Your task to perform on an android device: move an email to a new category in the gmail app Image 0: 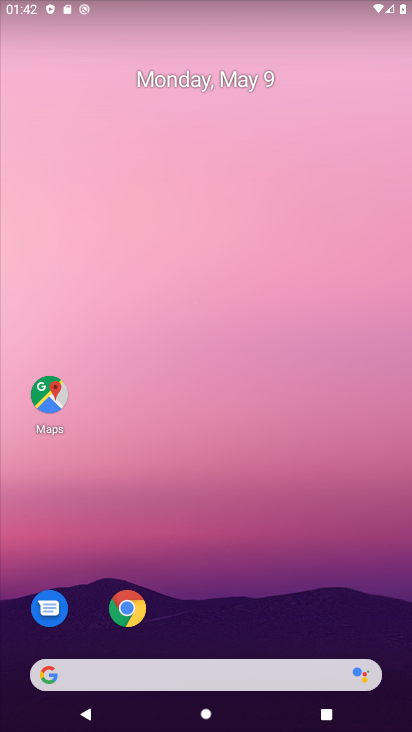
Step 0: drag from (311, 443) to (366, 259)
Your task to perform on an android device: move an email to a new category in the gmail app Image 1: 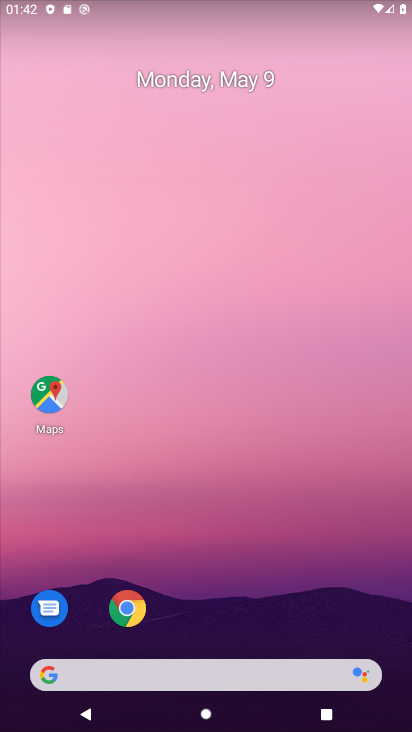
Step 1: drag from (228, 616) to (369, 59)
Your task to perform on an android device: move an email to a new category in the gmail app Image 2: 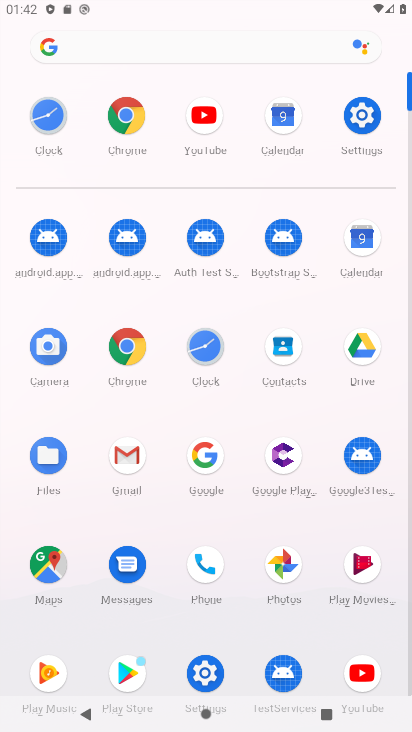
Step 2: click (123, 465)
Your task to perform on an android device: move an email to a new category in the gmail app Image 3: 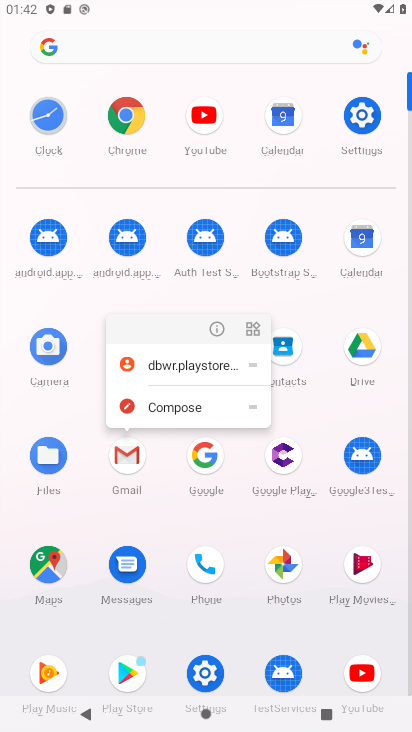
Step 3: click (123, 465)
Your task to perform on an android device: move an email to a new category in the gmail app Image 4: 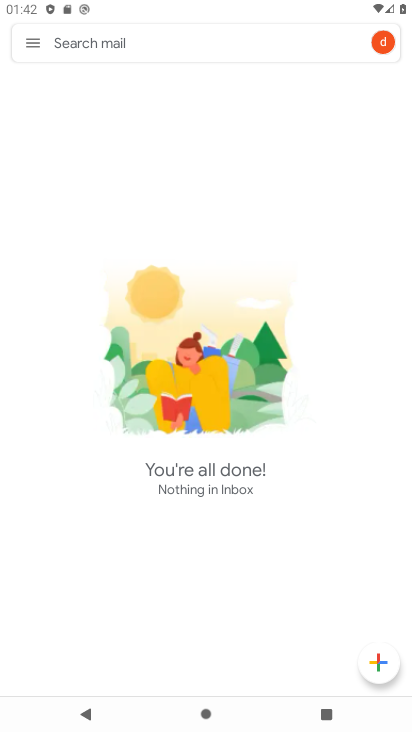
Step 4: task complete